Your task to perform on an android device: make emails show in primary in the gmail app Image 0: 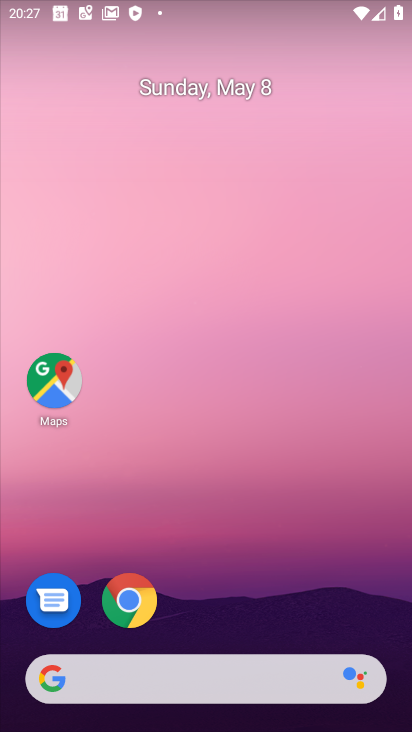
Step 0: drag from (317, 666) to (334, 283)
Your task to perform on an android device: make emails show in primary in the gmail app Image 1: 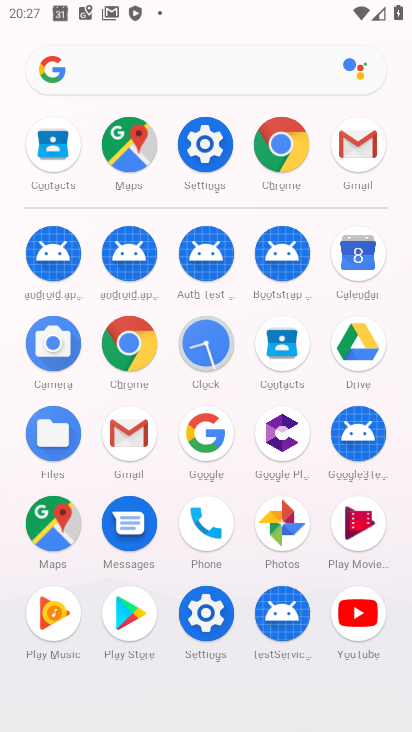
Step 1: click (347, 158)
Your task to perform on an android device: make emails show in primary in the gmail app Image 2: 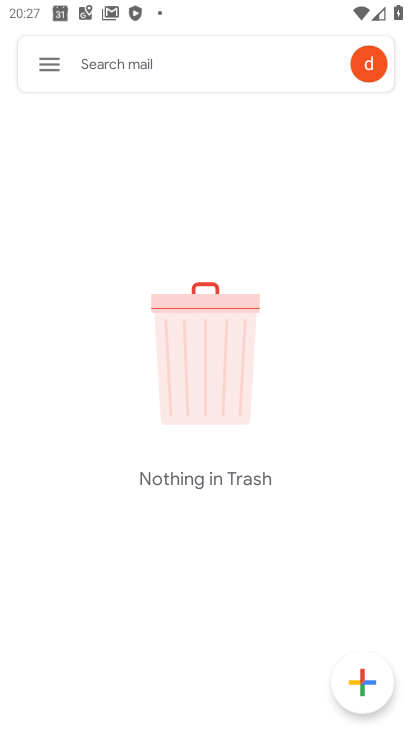
Step 2: click (39, 63)
Your task to perform on an android device: make emails show in primary in the gmail app Image 3: 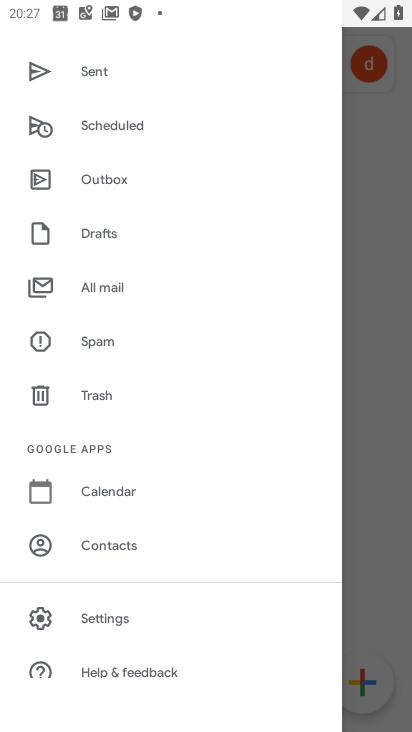
Step 3: click (121, 610)
Your task to perform on an android device: make emails show in primary in the gmail app Image 4: 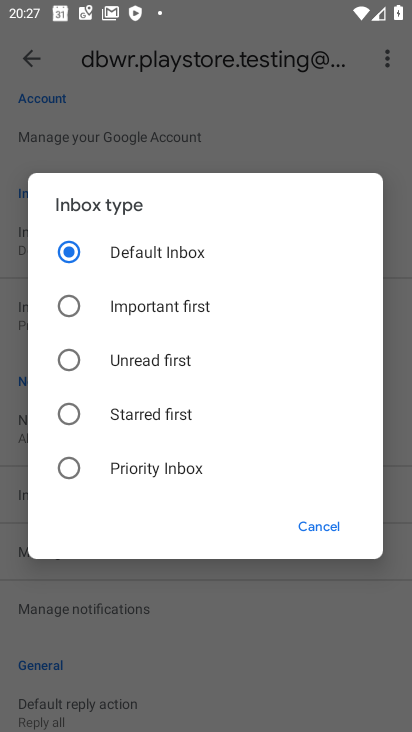
Step 4: click (309, 531)
Your task to perform on an android device: make emails show in primary in the gmail app Image 5: 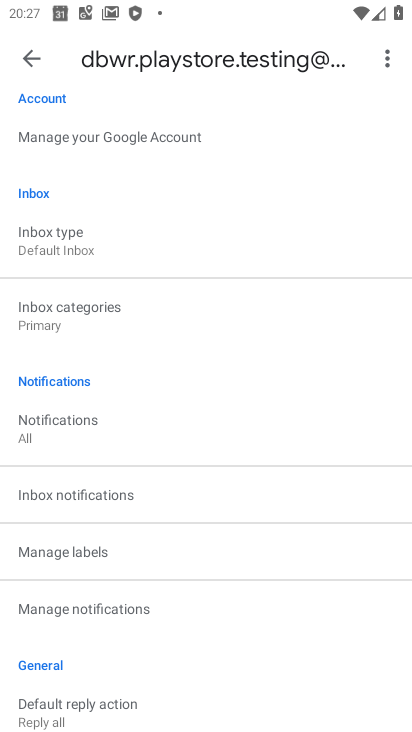
Step 5: click (140, 319)
Your task to perform on an android device: make emails show in primary in the gmail app Image 6: 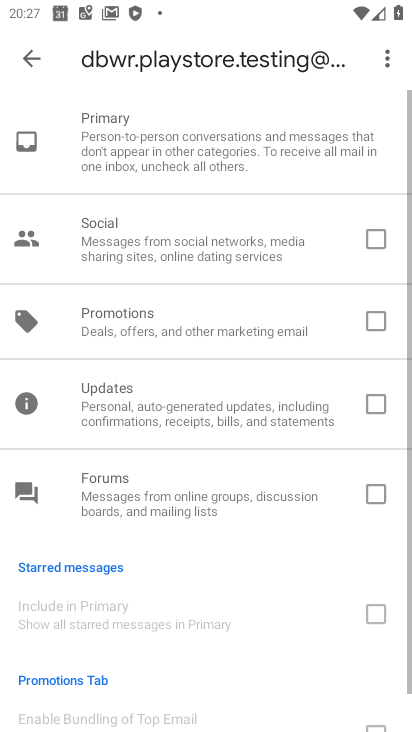
Step 6: click (185, 143)
Your task to perform on an android device: make emails show in primary in the gmail app Image 7: 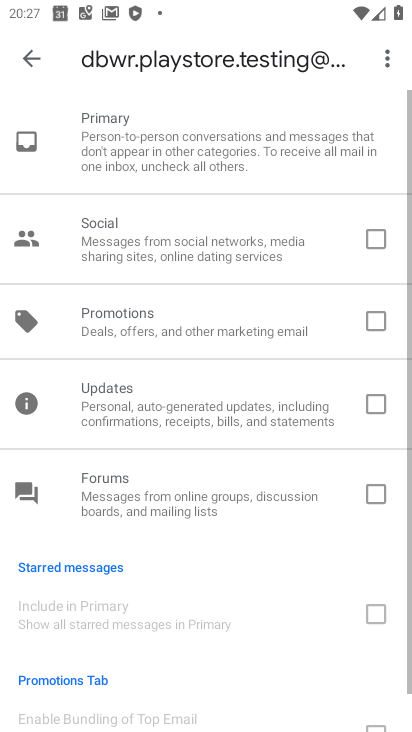
Step 7: task complete